Your task to perform on an android device: Open calendar and show me the second week of next month Image 0: 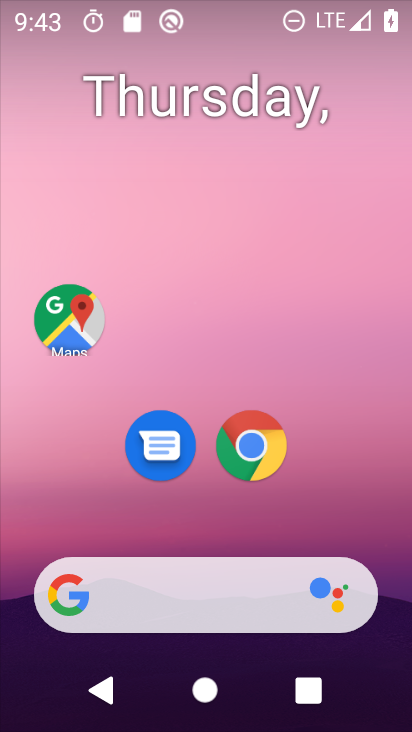
Step 0: drag from (198, 497) to (200, 139)
Your task to perform on an android device: Open calendar and show me the second week of next month Image 1: 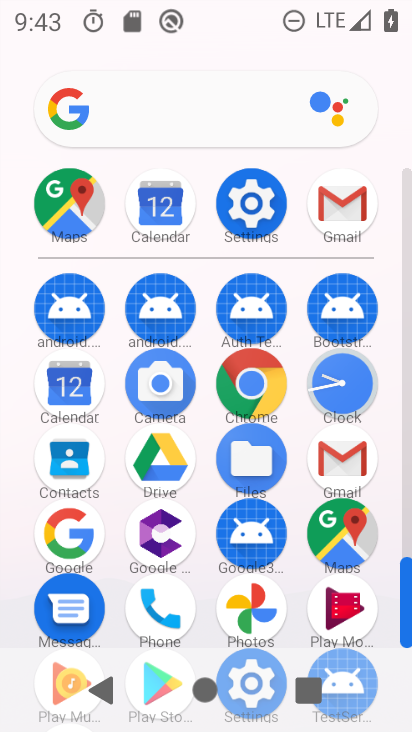
Step 1: click (79, 370)
Your task to perform on an android device: Open calendar and show me the second week of next month Image 2: 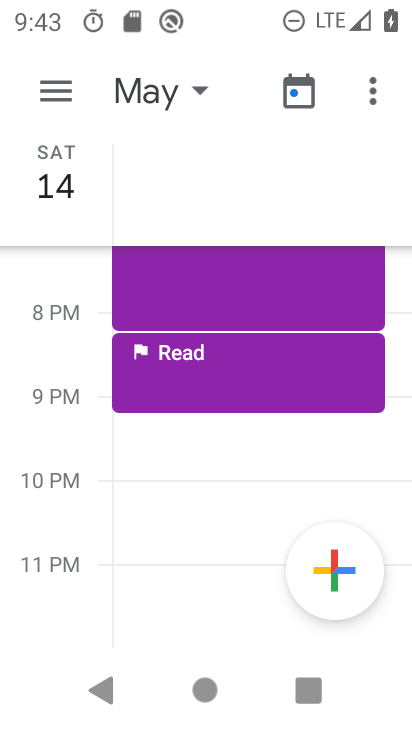
Step 2: click (141, 93)
Your task to perform on an android device: Open calendar and show me the second week of next month Image 3: 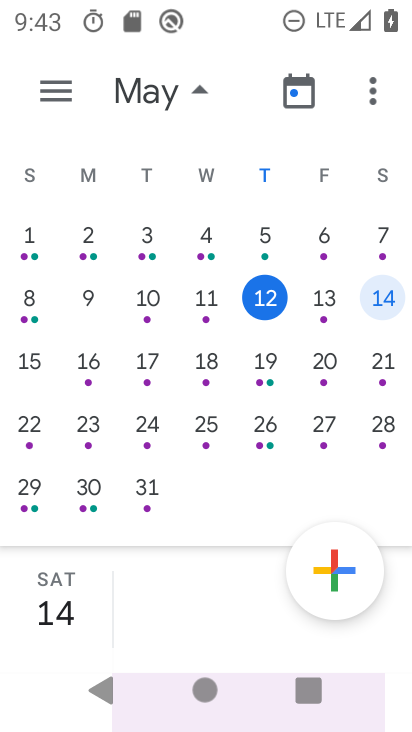
Step 3: drag from (348, 321) to (36, 363)
Your task to perform on an android device: Open calendar and show me the second week of next month Image 4: 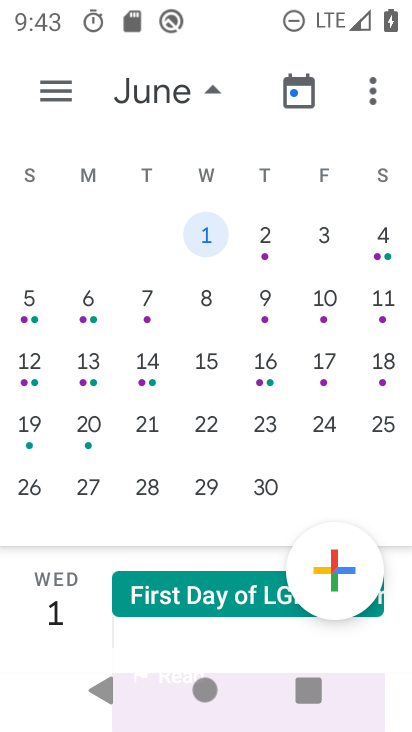
Step 4: click (268, 303)
Your task to perform on an android device: Open calendar and show me the second week of next month Image 5: 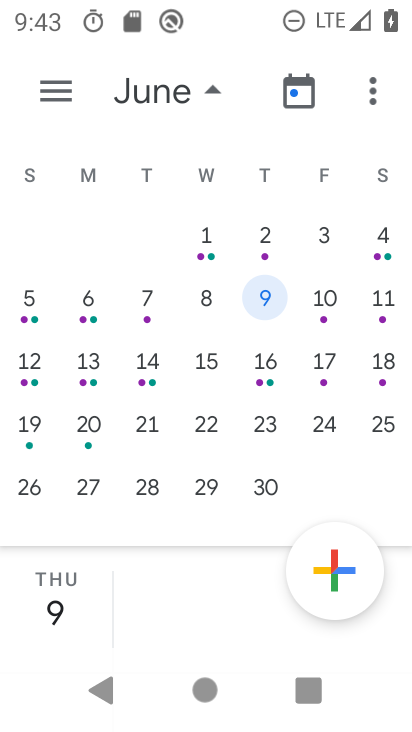
Step 5: task complete